Your task to perform on an android device: open app "Nova Launcher" (install if not already installed) and go to login screen Image 0: 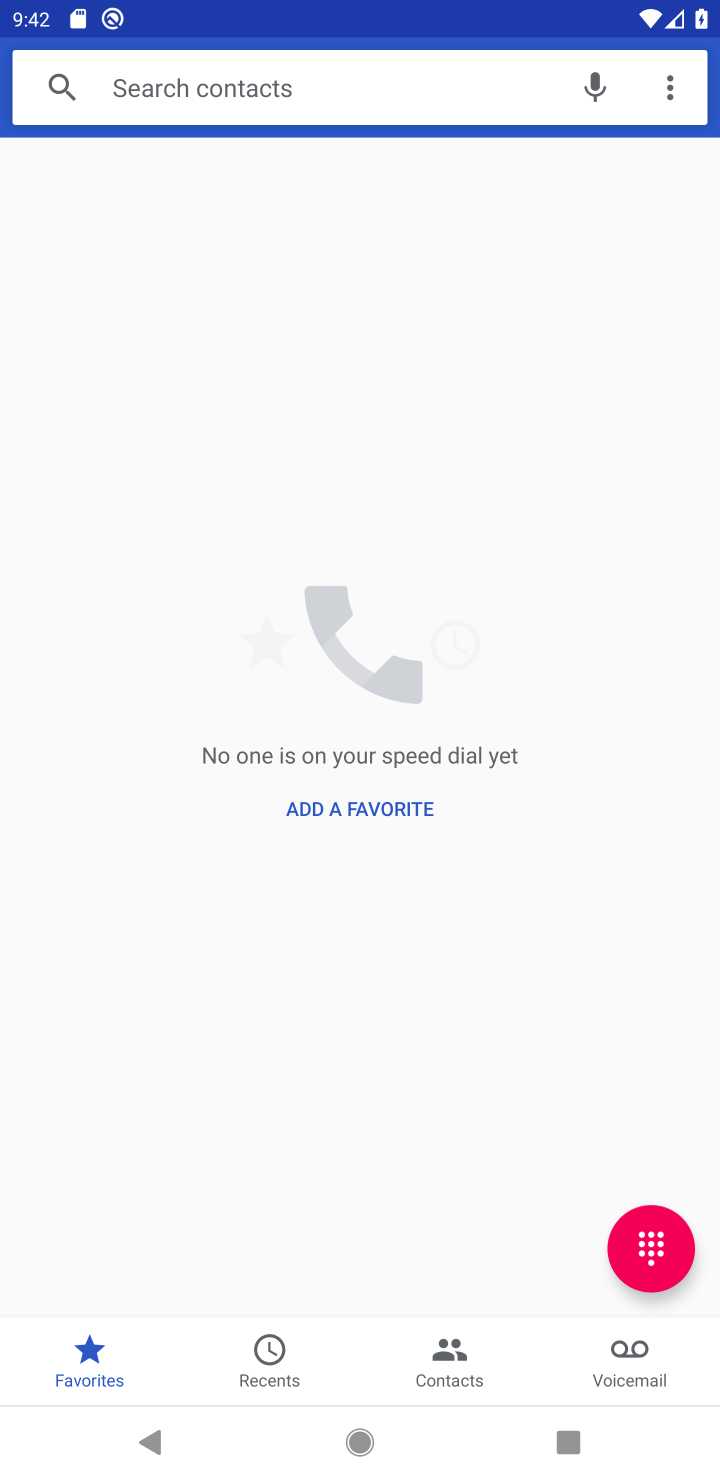
Step 0: press home button
Your task to perform on an android device: open app "Nova Launcher" (install if not already installed) and go to login screen Image 1: 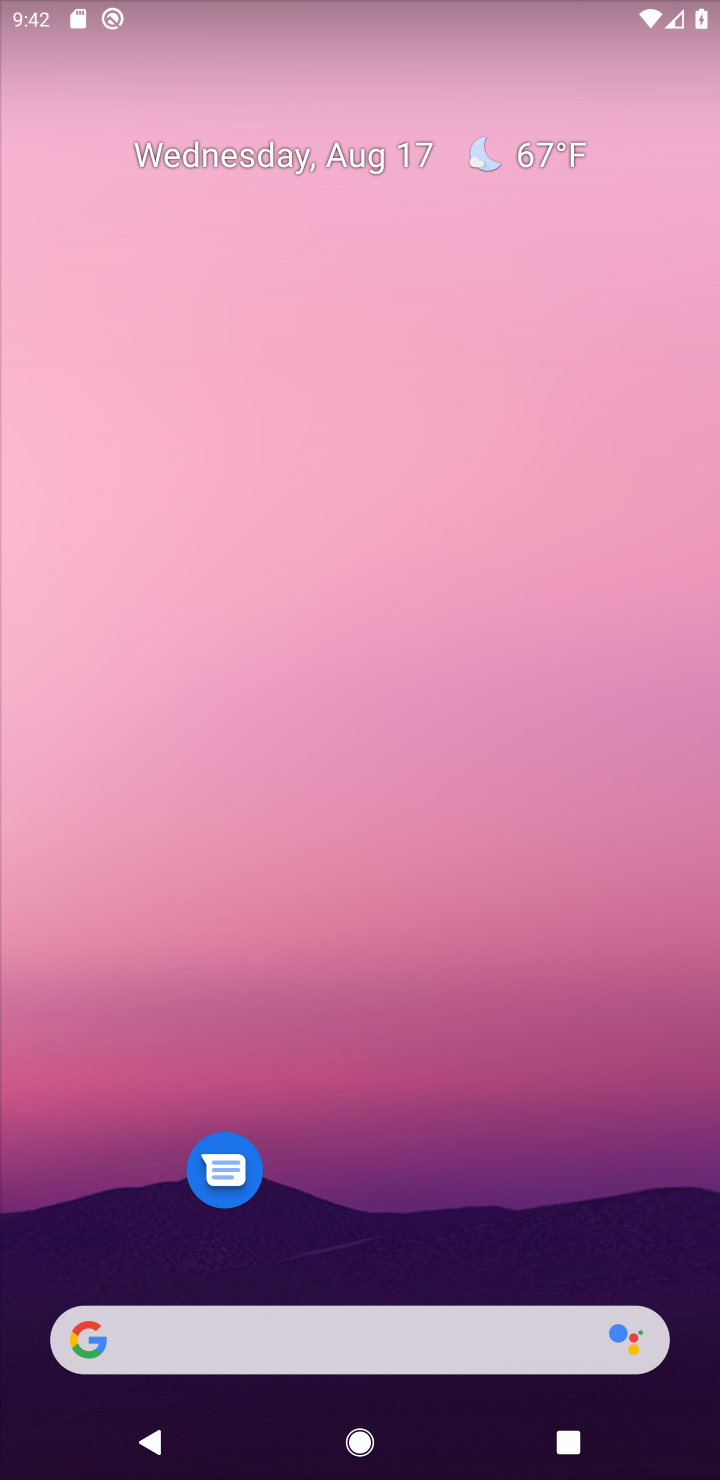
Step 1: drag from (310, 1187) to (314, 177)
Your task to perform on an android device: open app "Nova Launcher" (install if not already installed) and go to login screen Image 2: 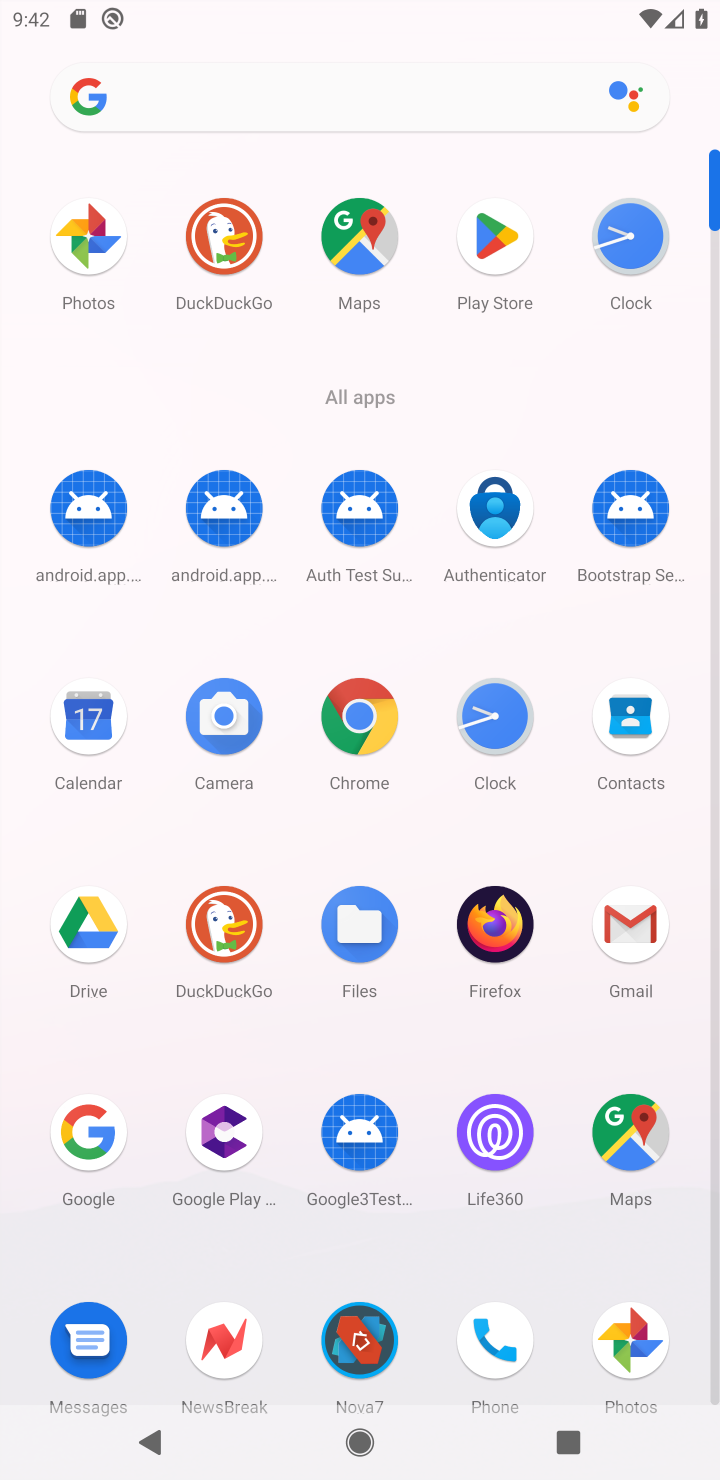
Step 2: click (223, 1346)
Your task to perform on an android device: open app "Nova Launcher" (install if not already installed) and go to login screen Image 3: 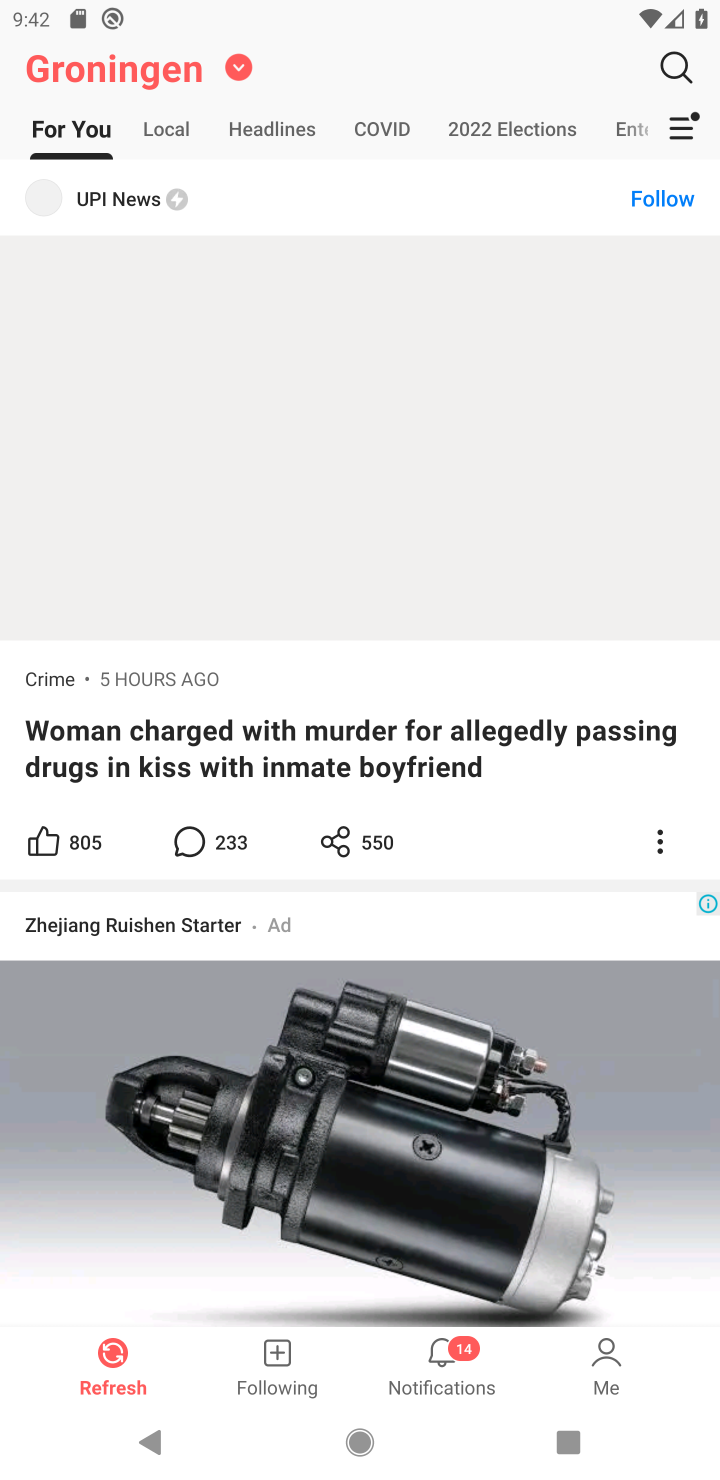
Step 3: task complete